Your task to perform on an android device: open device folders in google photos Image 0: 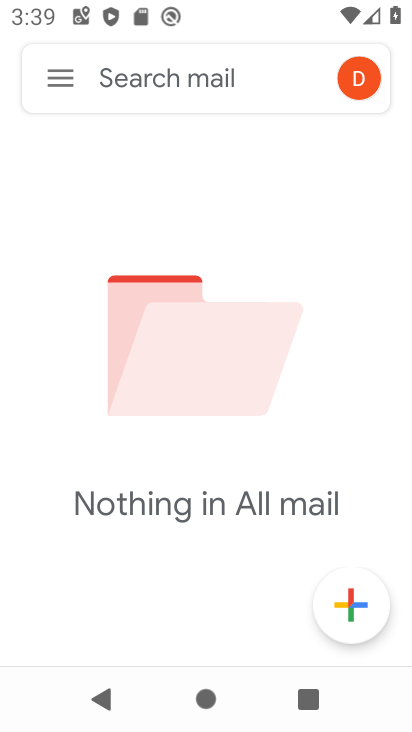
Step 0: press home button
Your task to perform on an android device: open device folders in google photos Image 1: 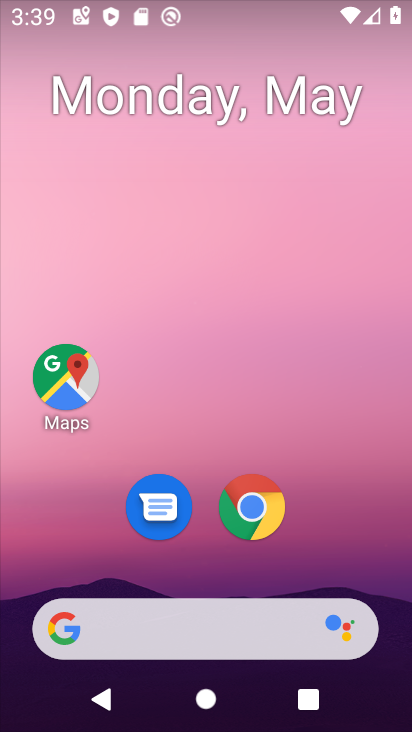
Step 1: drag from (200, 573) to (242, 17)
Your task to perform on an android device: open device folders in google photos Image 2: 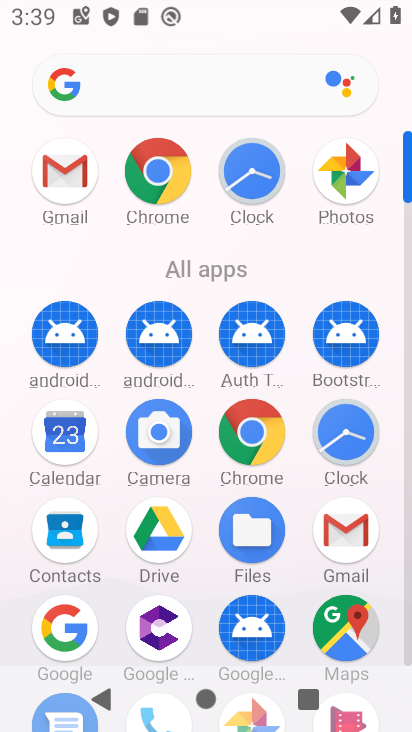
Step 2: click (339, 179)
Your task to perform on an android device: open device folders in google photos Image 3: 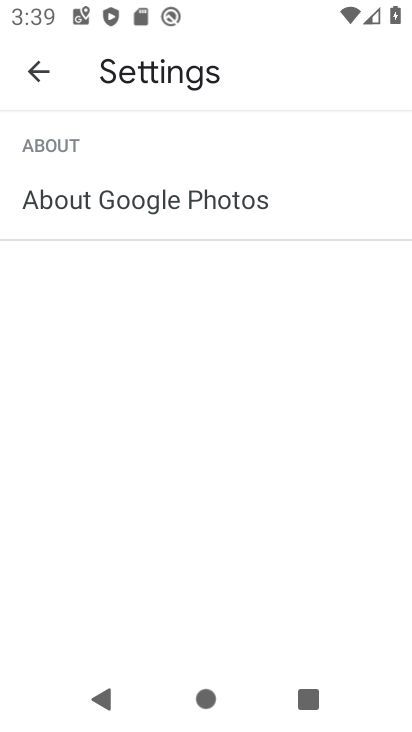
Step 3: click (48, 89)
Your task to perform on an android device: open device folders in google photos Image 4: 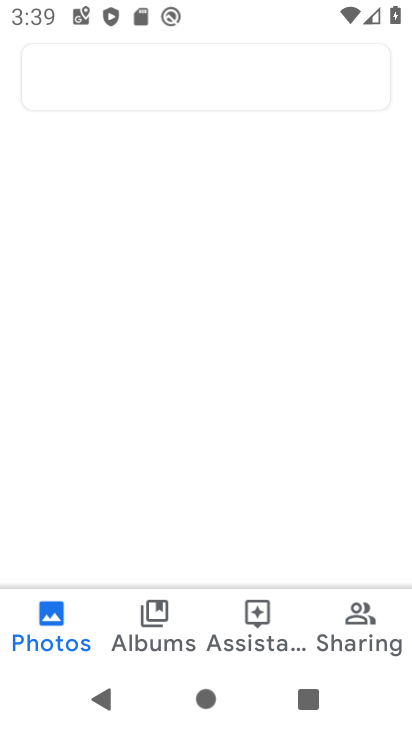
Step 4: click (48, 89)
Your task to perform on an android device: open device folders in google photos Image 5: 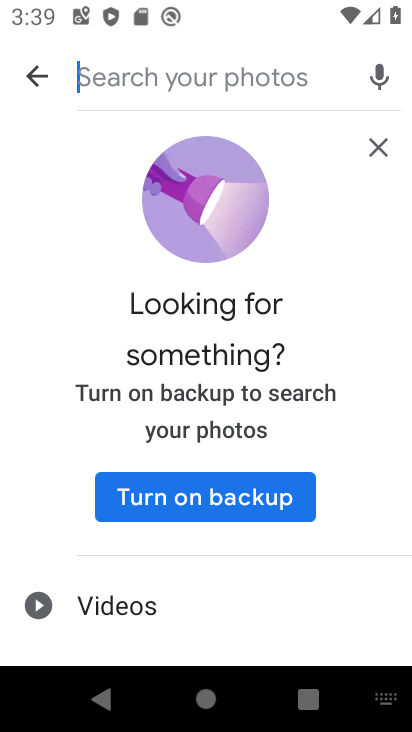
Step 5: click (48, 73)
Your task to perform on an android device: open device folders in google photos Image 6: 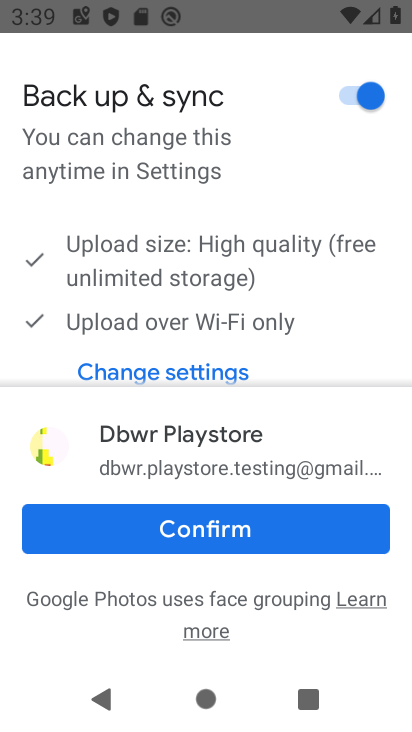
Step 6: click (181, 522)
Your task to perform on an android device: open device folders in google photos Image 7: 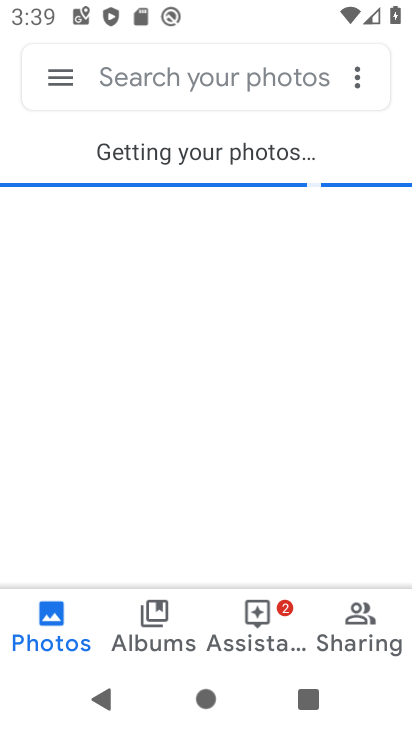
Step 7: click (81, 90)
Your task to perform on an android device: open device folders in google photos Image 8: 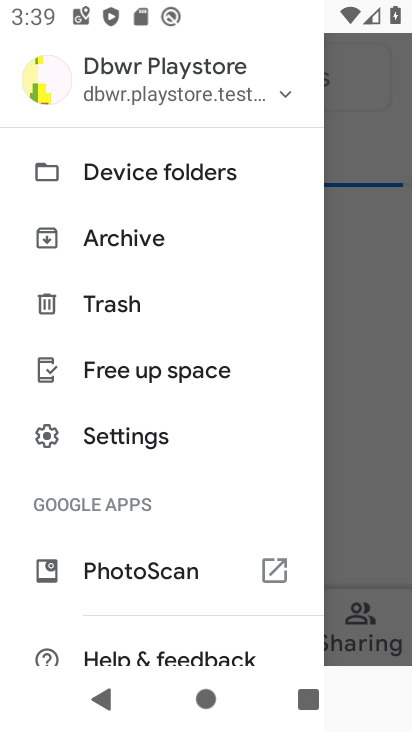
Step 8: click (89, 174)
Your task to perform on an android device: open device folders in google photos Image 9: 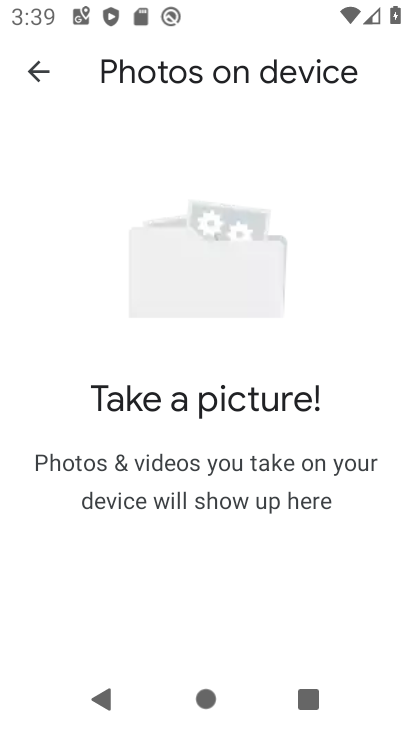
Step 9: task complete